Your task to perform on an android device: Open ESPN.com Image 0: 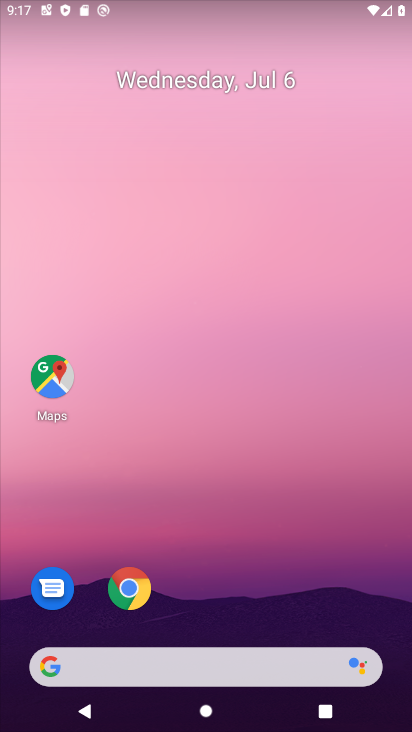
Step 0: click (134, 588)
Your task to perform on an android device: Open ESPN.com Image 1: 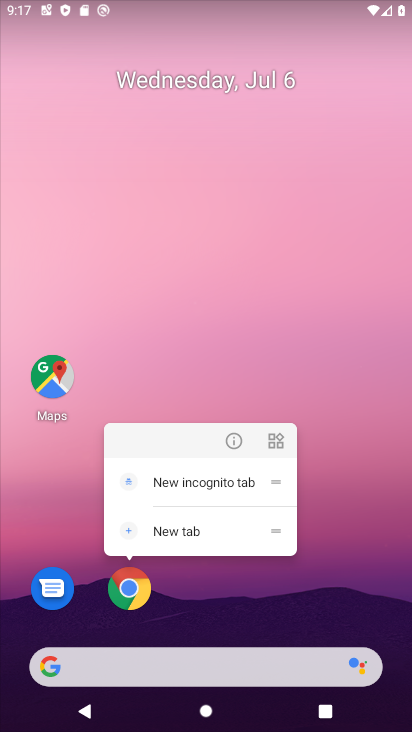
Step 1: click (138, 585)
Your task to perform on an android device: Open ESPN.com Image 2: 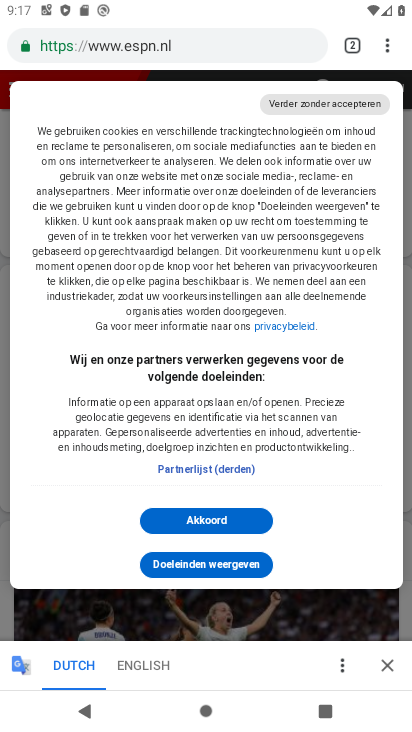
Step 2: click (218, 473)
Your task to perform on an android device: Open ESPN.com Image 3: 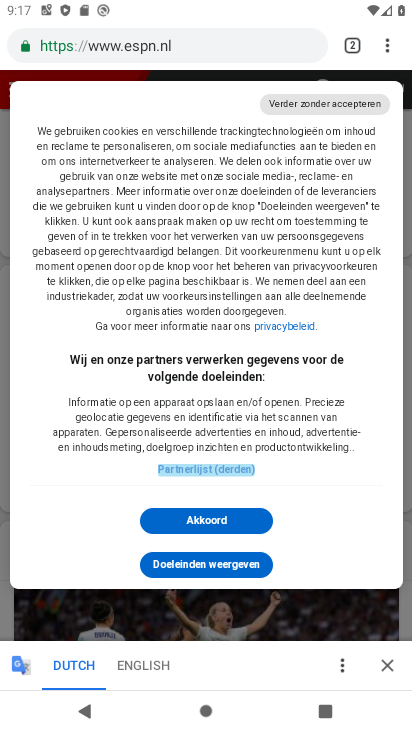
Step 3: click (214, 527)
Your task to perform on an android device: Open ESPN.com Image 4: 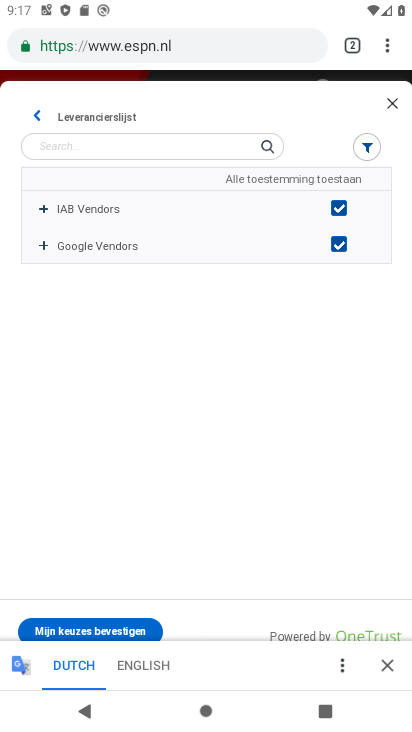
Step 4: click (209, 519)
Your task to perform on an android device: Open ESPN.com Image 5: 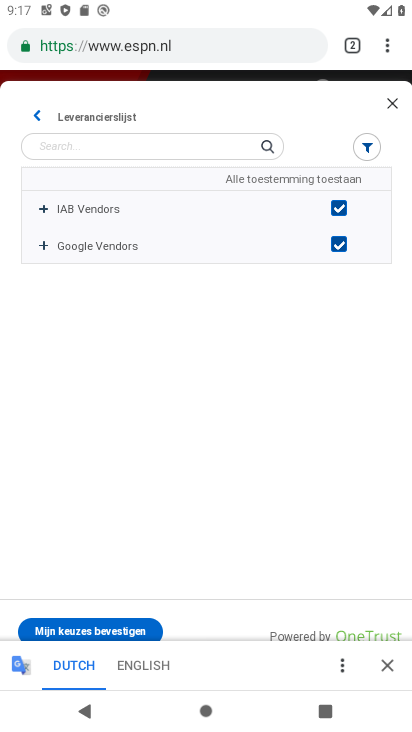
Step 5: press back button
Your task to perform on an android device: Open ESPN.com Image 6: 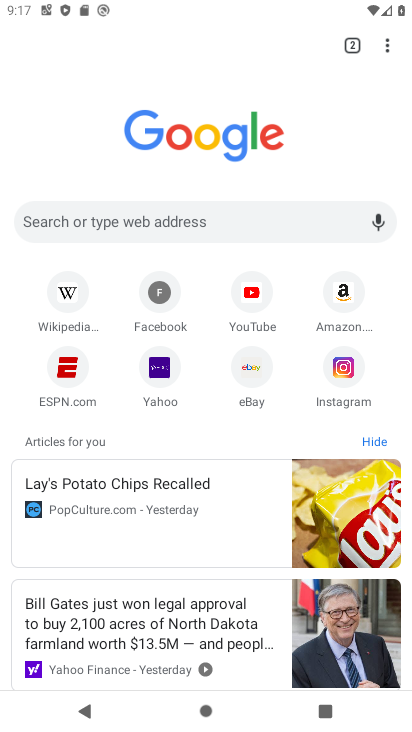
Step 6: click (69, 368)
Your task to perform on an android device: Open ESPN.com Image 7: 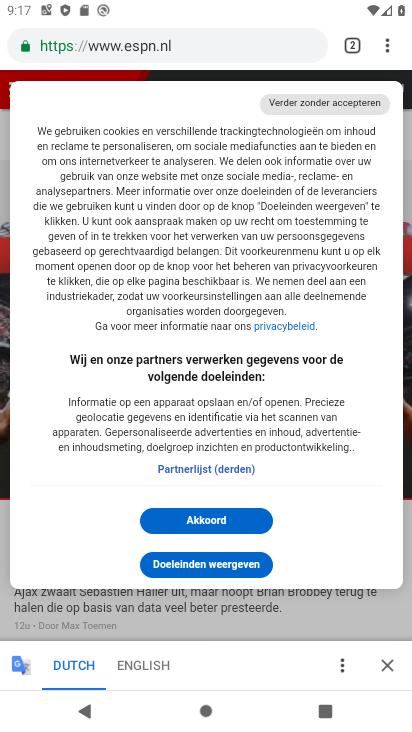
Step 7: click (161, 661)
Your task to perform on an android device: Open ESPN.com Image 8: 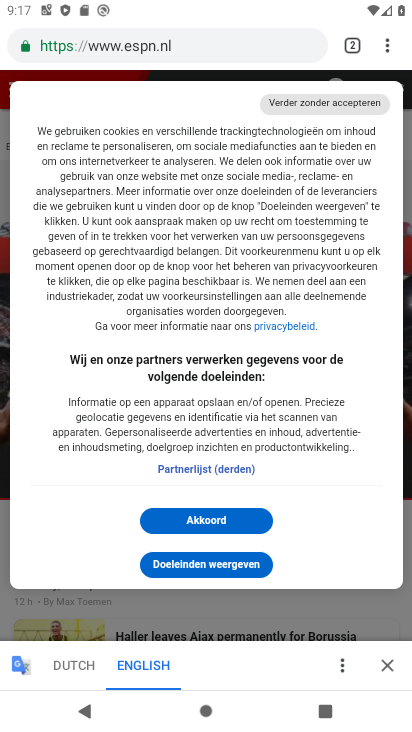
Step 8: click (236, 520)
Your task to perform on an android device: Open ESPN.com Image 9: 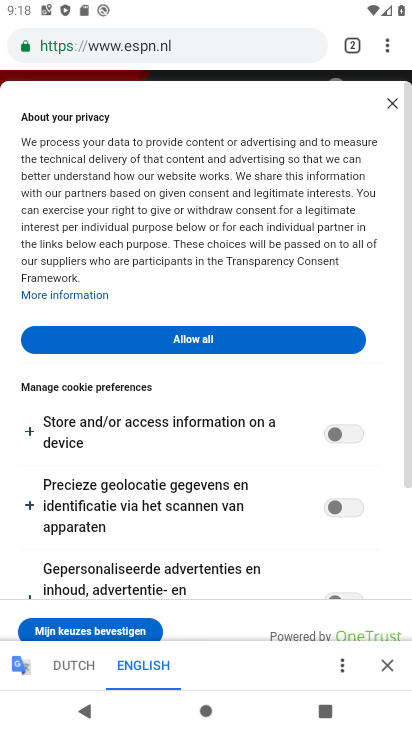
Step 9: click (205, 341)
Your task to perform on an android device: Open ESPN.com Image 10: 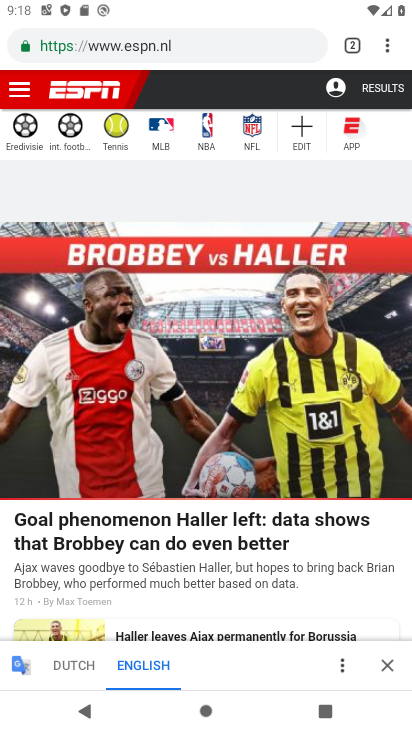
Step 10: task complete